Your task to perform on an android device: Open the stopwatch Image 0: 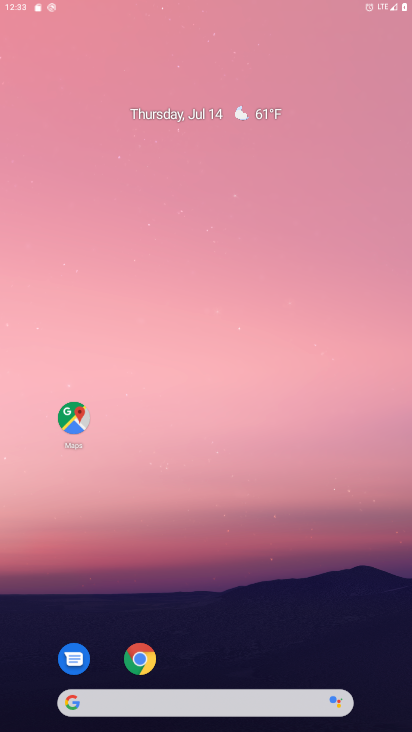
Step 0: press home button
Your task to perform on an android device: Open the stopwatch Image 1: 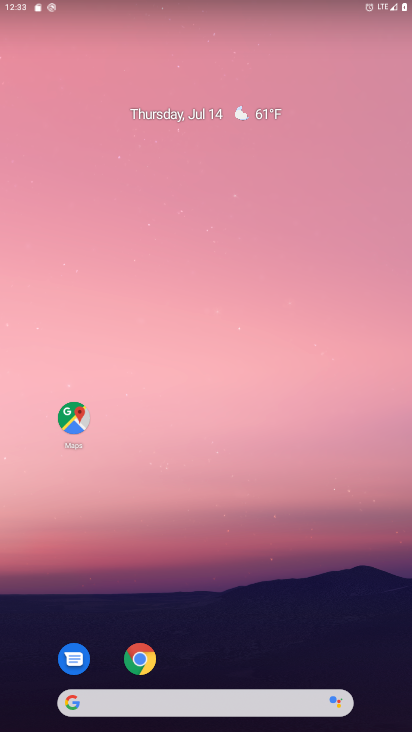
Step 1: click (202, 6)
Your task to perform on an android device: Open the stopwatch Image 2: 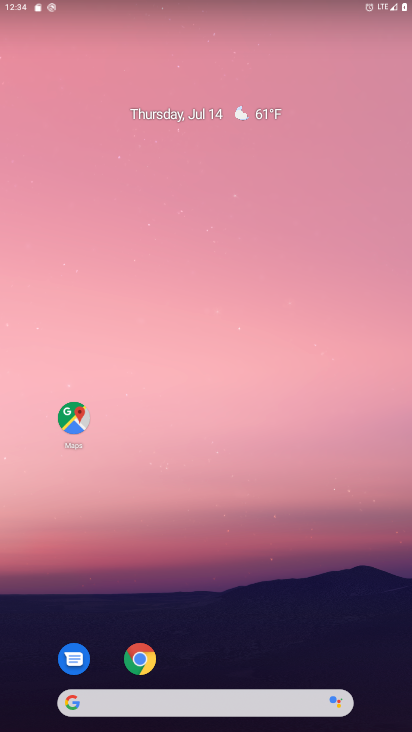
Step 2: drag from (223, 661) to (241, 31)
Your task to perform on an android device: Open the stopwatch Image 3: 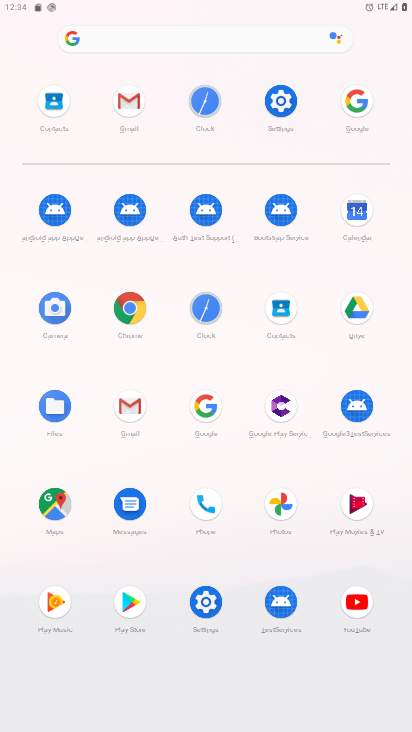
Step 3: click (202, 303)
Your task to perform on an android device: Open the stopwatch Image 4: 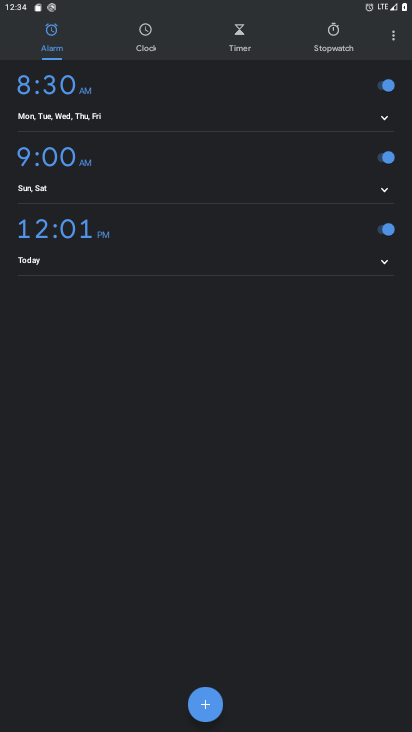
Step 4: click (333, 28)
Your task to perform on an android device: Open the stopwatch Image 5: 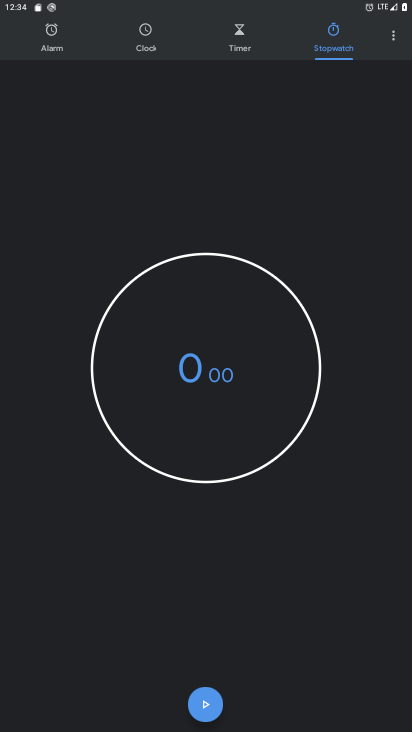
Step 5: click (206, 695)
Your task to perform on an android device: Open the stopwatch Image 6: 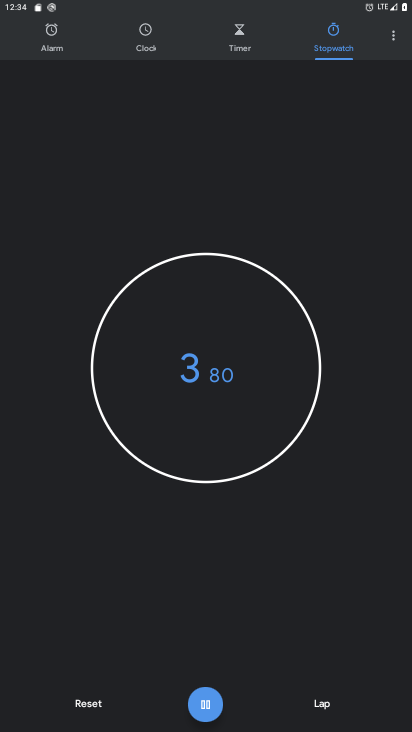
Step 6: task complete